Your task to perform on an android device: Add "dell xps" to the cart on bestbuy, then select checkout. Image 0: 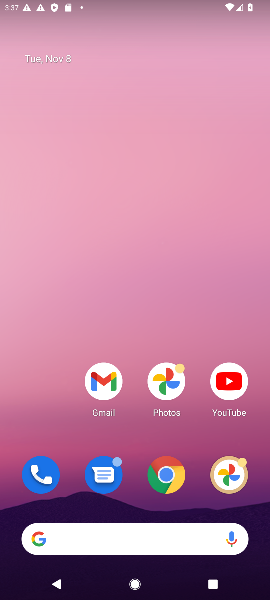
Step 0: drag from (100, 548) to (118, 116)
Your task to perform on an android device: Add "dell xps" to the cart on bestbuy, then select checkout. Image 1: 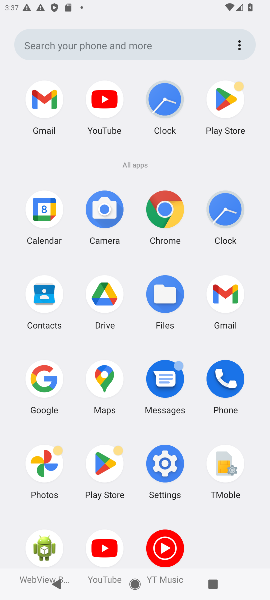
Step 1: click (51, 372)
Your task to perform on an android device: Add "dell xps" to the cart on bestbuy, then select checkout. Image 2: 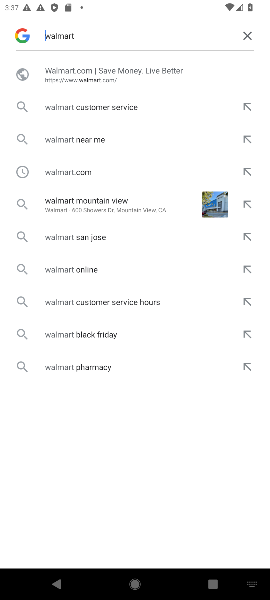
Step 2: click (244, 35)
Your task to perform on an android device: Add "dell xps" to the cart on bestbuy, then select checkout. Image 3: 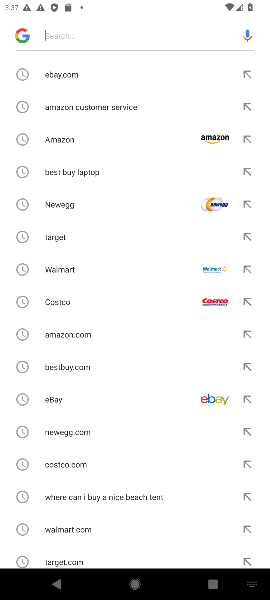
Step 3: click (92, 29)
Your task to perform on an android device: Add "dell xps" to the cart on bestbuy, then select checkout. Image 4: 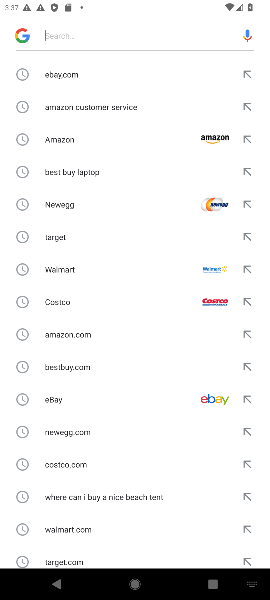
Step 4: type "bestbuy "
Your task to perform on an android device: Add "dell xps" to the cart on bestbuy, then select checkout. Image 5: 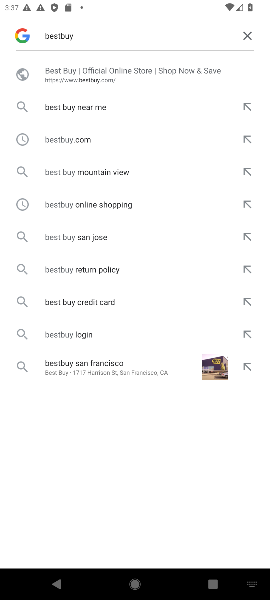
Step 5: click (144, 69)
Your task to perform on an android device: Add "dell xps" to the cart on bestbuy, then select checkout. Image 6: 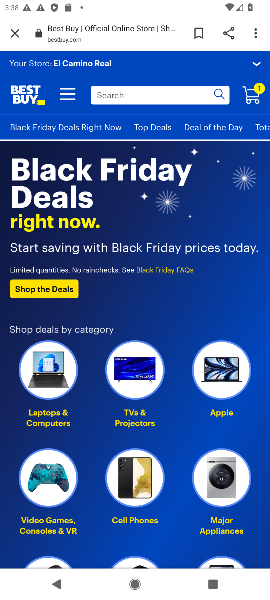
Step 6: click (151, 91)
Your task to perform on an android device: Add "dell xps" to the cart on bestbuy, then select checkout. Image 7: 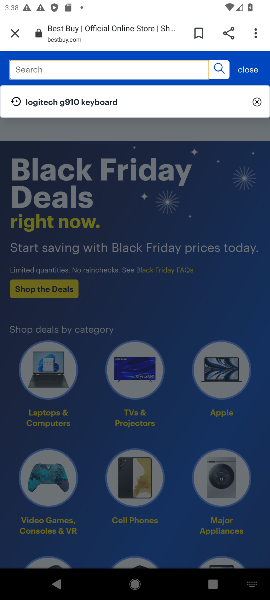
Step 7: click (123, 66)
Your task to perform on an android device: Add "dell xps" to the cart on bestbuy, then select checkout. Image 8: 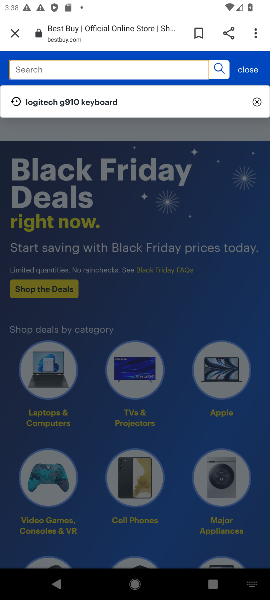
Step 8: type "dell xps "
Your task to perform on an android device: Add "dell xps" to the cart on bestbuy, then select checkout. Image 9: 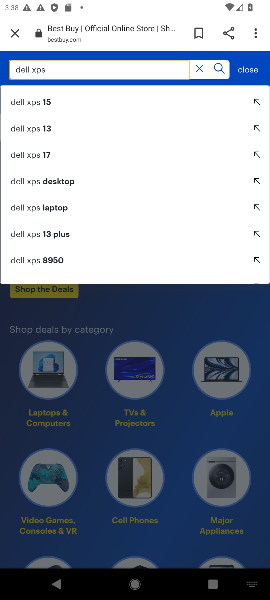
Step 9: click (39, 100)
Your task to perform on an android device: Add "dell xps" to the cart on bestbuy, then select checkout. Image 10: 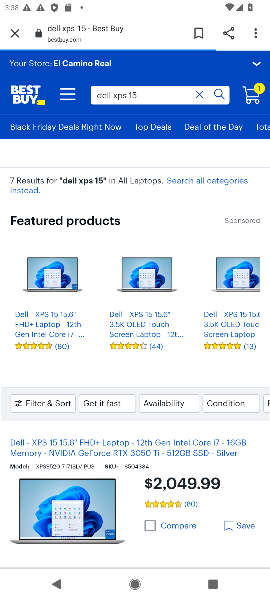
Step 10: drag from (130, 476) to (133, 276)
Your task to perform on an android device: Add "dell xps" to the cart on bestbuy, then select checkout. Image 11: 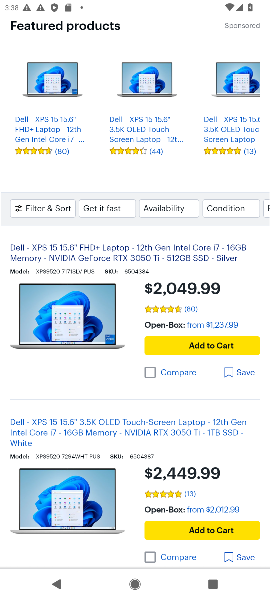
Step 11: click (161, 251)
Your task to perform on an android device: Add "dell xps" to the cart on bestbuy, then select checkout. Image 12: 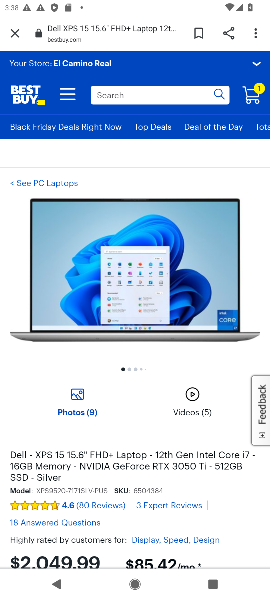
Step 12: drag from (168, 542) to (184, 196)
Your task to perform on an android device: Add "dell xps" to the cart on bestbuy, then select checkout. Image 13: 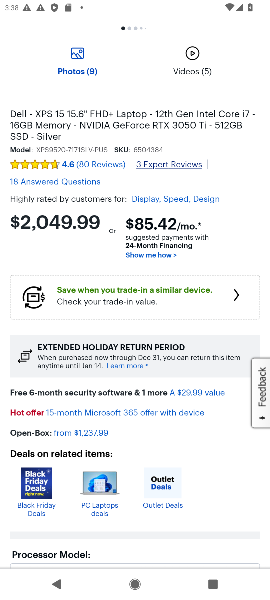
Step 13: drag from (138, 510) to (154, 197)
Your task to perform on an android device: Add "dell xps" to the cart on bestbuy, then select checkout. Image 14: 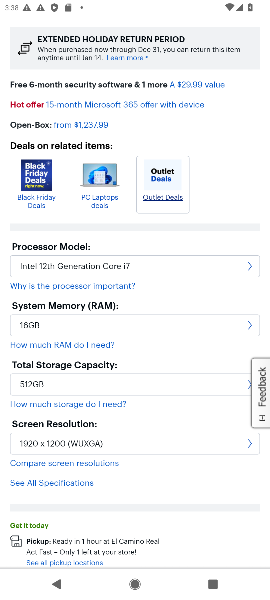
Step 14: drag from (127, 197) to (138, 444)
Your task to perform on an android device: Add "dell xps" to the cart on bestbuy, then select checkout. Image 15: 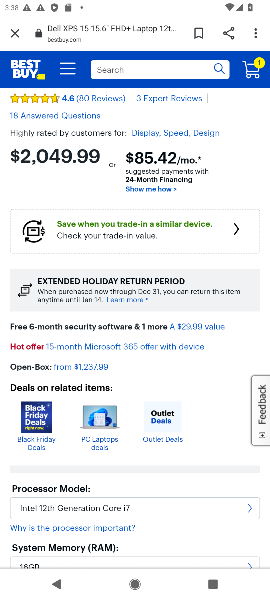
Step 15: drag from (120, 161) to (134, 453)
Your task to perform on an android device: Add "dell xps" to the cart on bestbuy, then select checkout. Image 16: 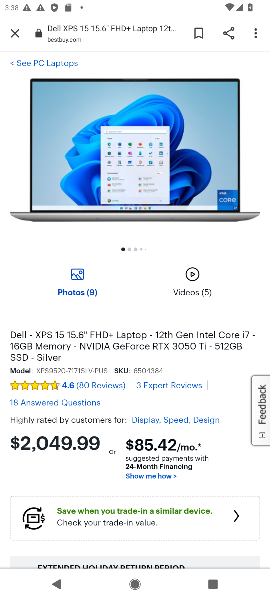
Step 16: click (139, 345)
Your task to perform on an android device: Add "dell xps" to the cart on bestbuy, then select checkout. Image 17: 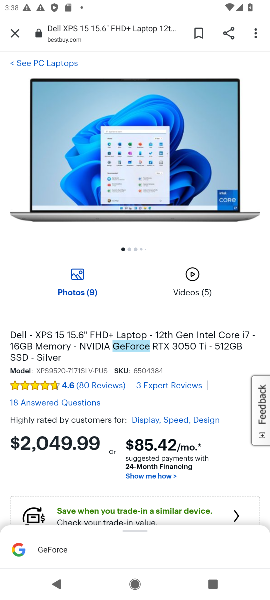
Step 17: click (175, 197)
Your task to perform on an android device: Add "dell xps" to the cart on bestbuy, then select checkout. Image 18: 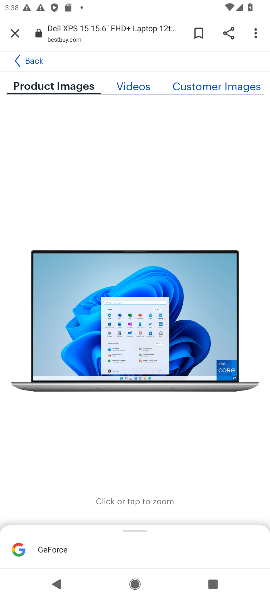
Step 18: drag from (158, 480) to (158, 177)
Your task to perform on an android device: Add "dell xps" to the cart on bestbuy, then select checkout. Image 19: 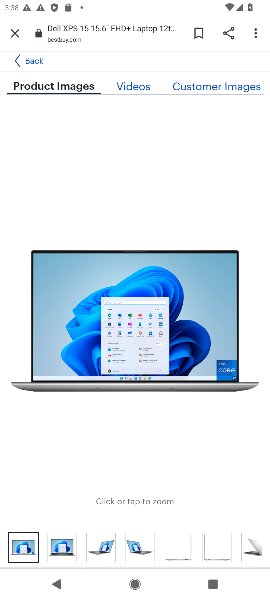
Step 19: drag from (161, 493) to (163, 196)
Your task to perform on an android device: Add "dell xps" to the cart on bestbuy, then select checkout. Image 20: 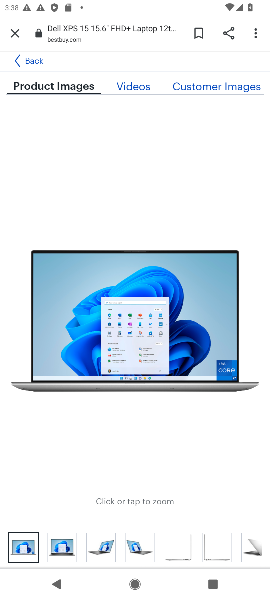
Step 20: drag from (162, 474) to (162, 215)
Your task to perform on an android device: Add "dell xps" to the cart on bestbuy, then select checkout. Image 21: 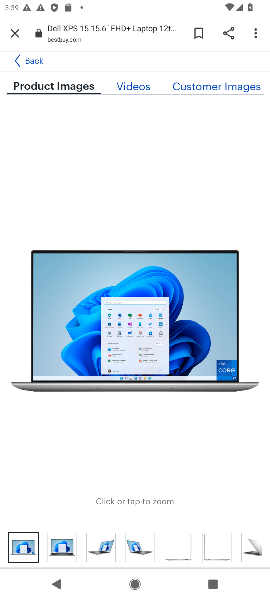
Step 21: press back button
Your task to perform on an android device: Add "dell xps" to the cart on bestbuy, then select checkout. Image 22: 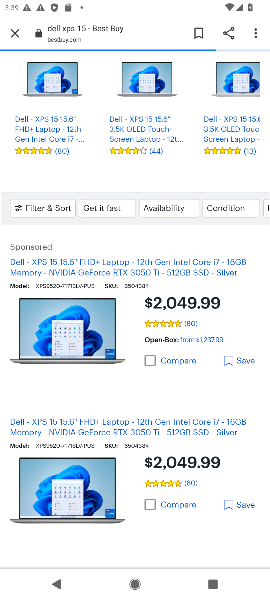
Step 22: drag from (153, 520) to (174, 298)
Your task to perform on an android device: Add "dell xps" to the cart on bestbuy, then select checkout. Image 23: 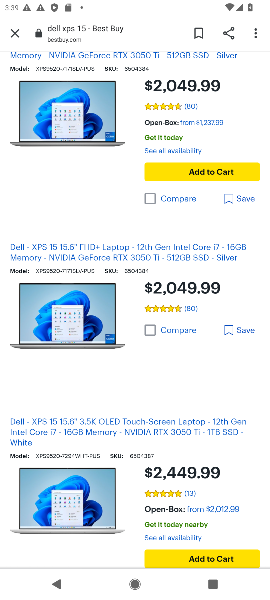
Step 23: click (189, 171)
Your task to perform on an android device: Add "dell xps" to the cart on bestbuy, then select checkout. Image 24: 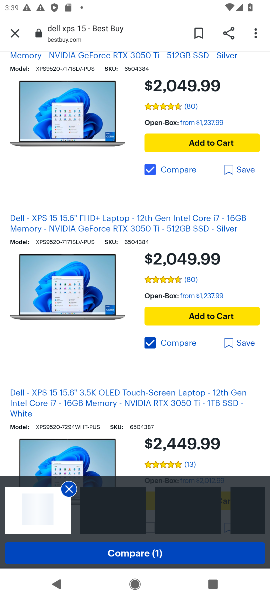
Step 24: click (202, 141)
Your task to perform on an android device: Add "dell xps" to the cart on bestbuy, then select checkout. Image 25: 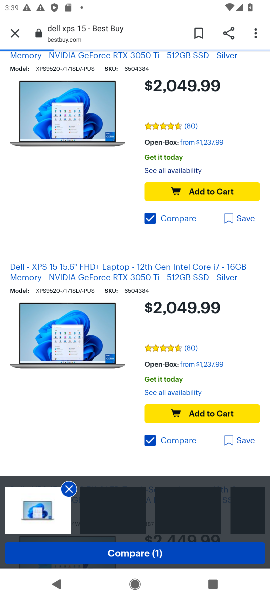
Step 25: click (197, 167)
Your task to perform on an android device: Add "dell xps" to the cart on bestbuy, then select checkout. Image 26: 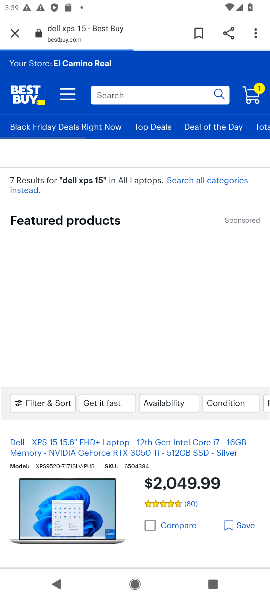
Step 26: click (197, 191)
Your task to perform on an android device: Add "dell xps" to the cart on bestbuy, then select checkout. Image 27: 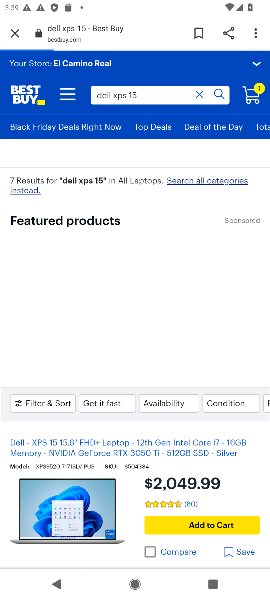
Step 27: task complete